Your task to perform on an android device: toggle pop-ups in chrome Image 0: 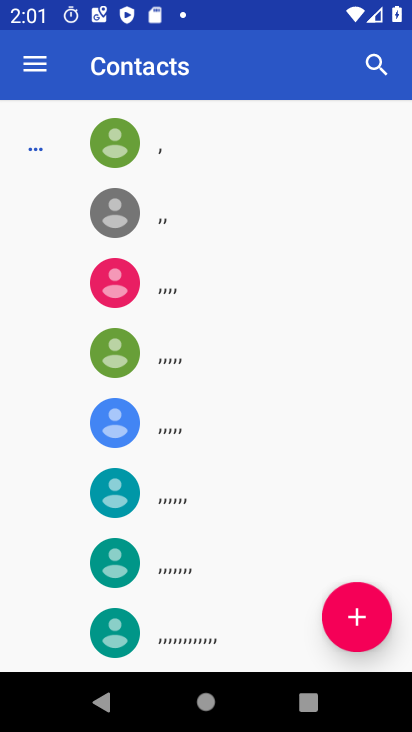
Step 0: press home button
Your task to perform on an android device: toggle pop-ups in chrome Image 1: 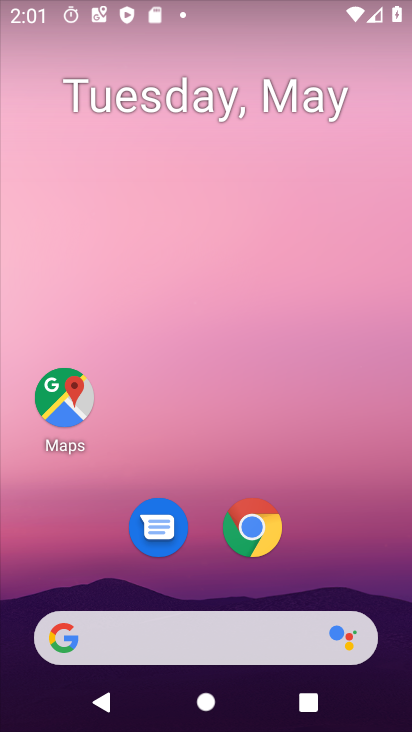
Step 1: drag from (260, 669) to (291, 312)
Your task to perform on an android device: toggle pop-ups in chrome Image 2: 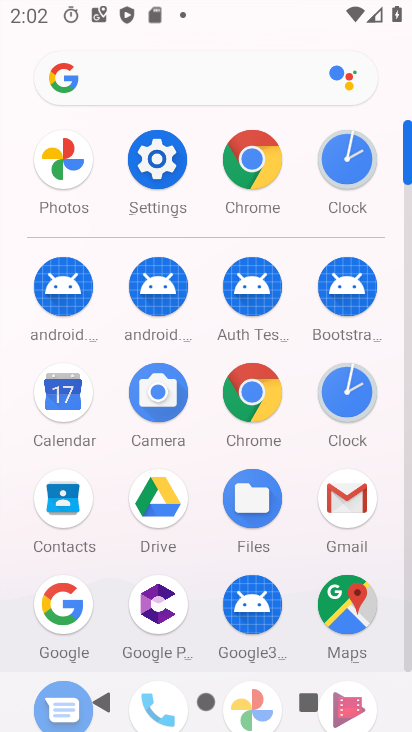
Step 2: click (254, 171)
Your task to perform on an android device: toggle pop-ups in chrome Image 3: 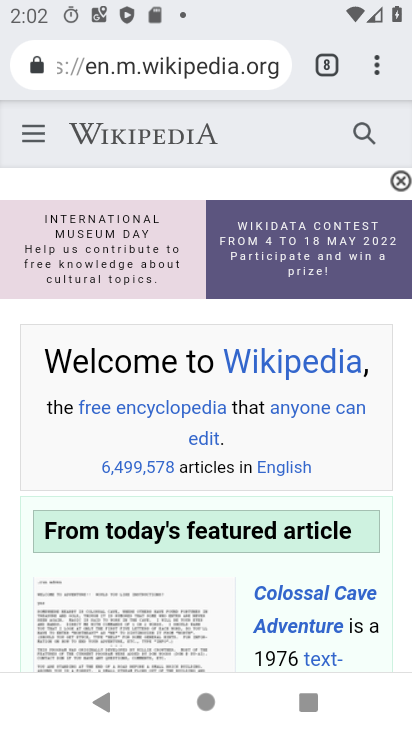
Step 3: click (368, 81)
Your task to perform on an android device: toggle pop-ups in chrome Image 4: 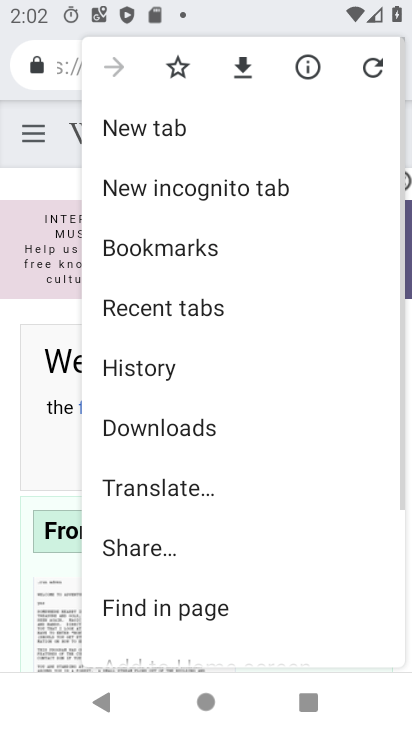
Step 4: drag from (231, 512) to (297, 256)
Your task to perform on an android device: toggle pop-ups in chrome Image 5: 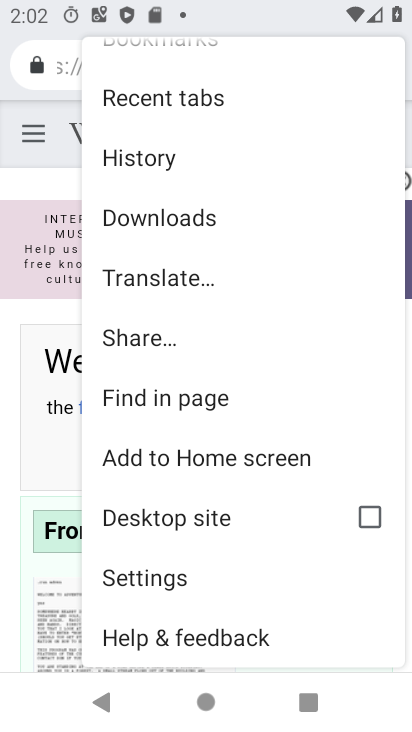
Step 5: click (195, 570)
Your task to perform on an android device: toggle pop-ups in chrome Image 6: 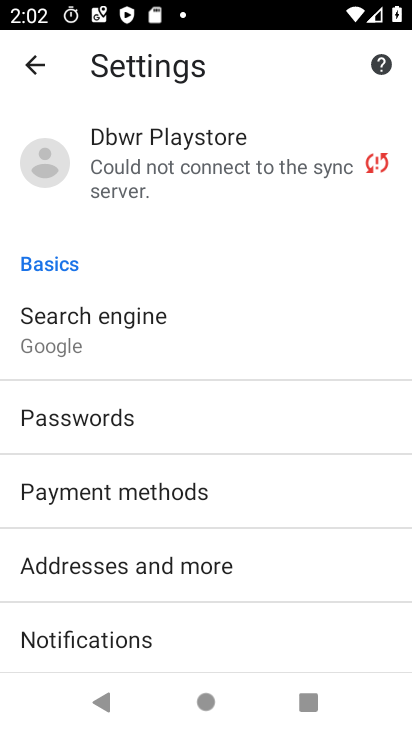
Step 6: drag from (183, 582) to (170, 367)
Your task to perform on an android device: toggle pop-ups in chrome Image 7: 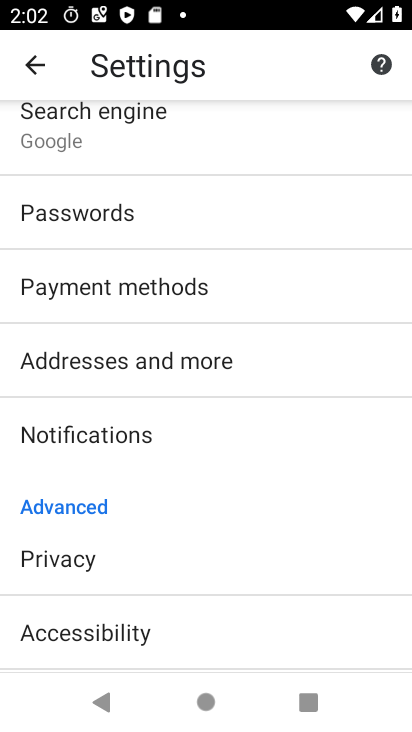
Step 7: drag from (215, 549) to (236, 428)
Your task to perform on an android device: toggle pop-ups in chrome Image 8: 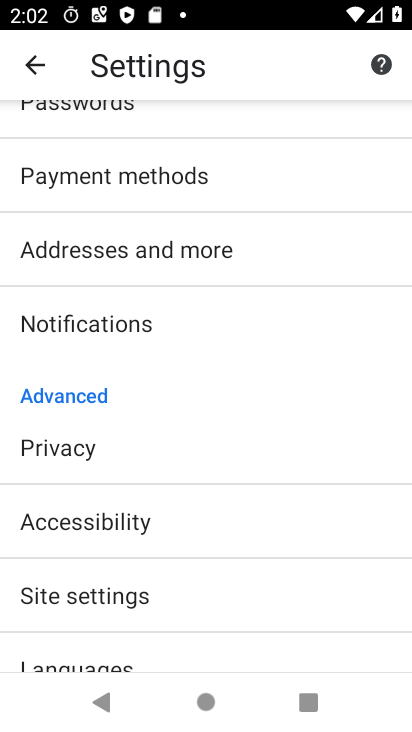
Step 8: click (107, 590)
Your task to perform on an android device: toggle pop-ups in chrome Image 9: 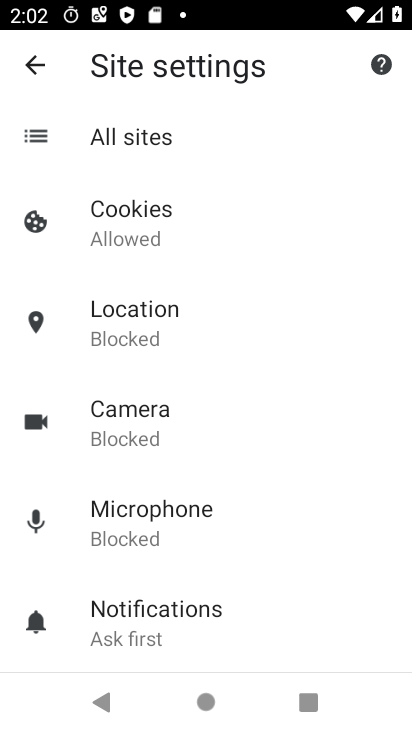
Step 9: drag from (114, 579) to (211, 350)
Your task to perform on an android device: toggle pop-ups in chrome Image 10: 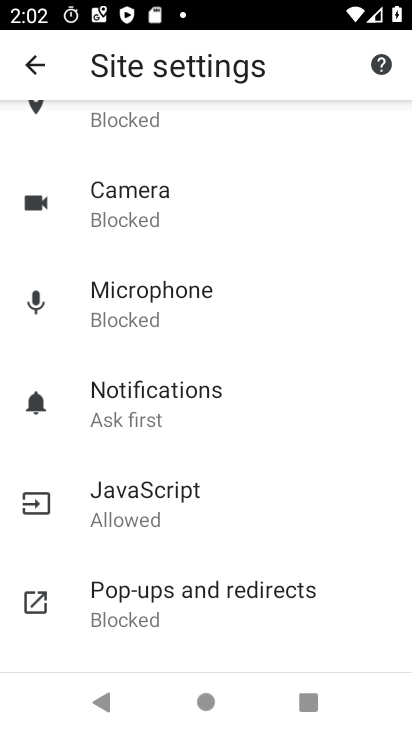
Step 10: click (168, 584)
Your task to perform on an android device: toggle pop-ups in chrome Image 11: 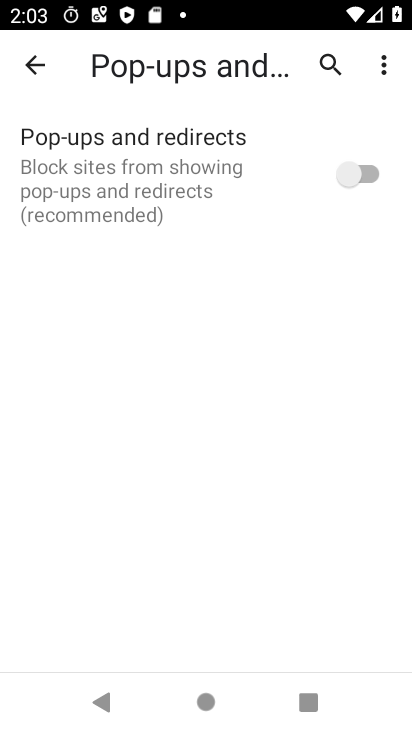
Step 11: click (361, 158)
Your task to perform on an android device: toggle pop-ups in chrome Image 12: 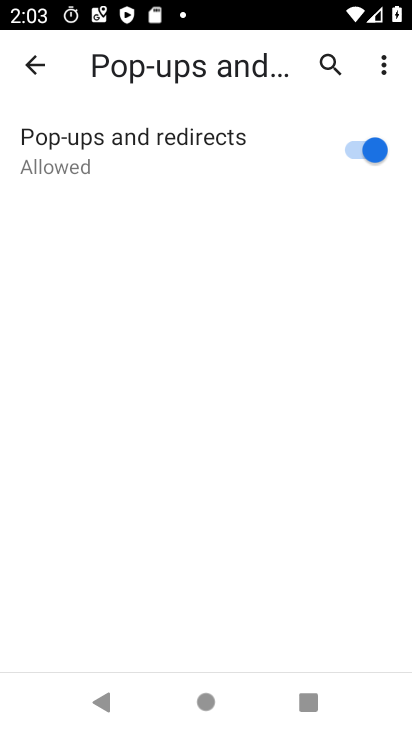
Step 12: task complete